Your task to perform on an android device: Clear the shopping cart on ebay.com. Add "apple airpods" to the cart on ebay.com, then select checkout. Image 0: 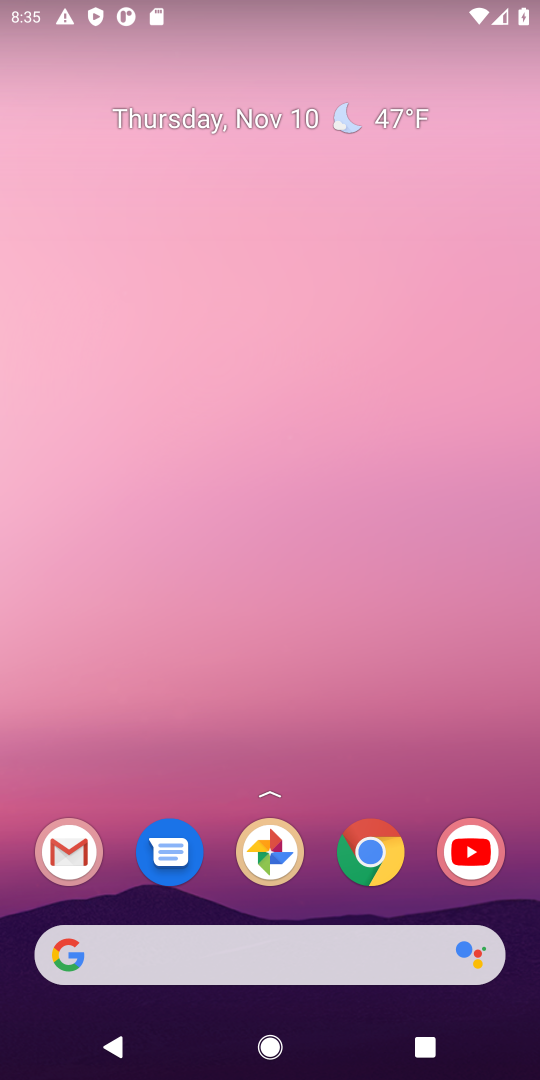
Step 0: press home button
Your task to perform on an android device: Clear the shopping cart on ebay.com. Add "apple airpods" to the cart on ebay.com, then select checkout. Image 1: 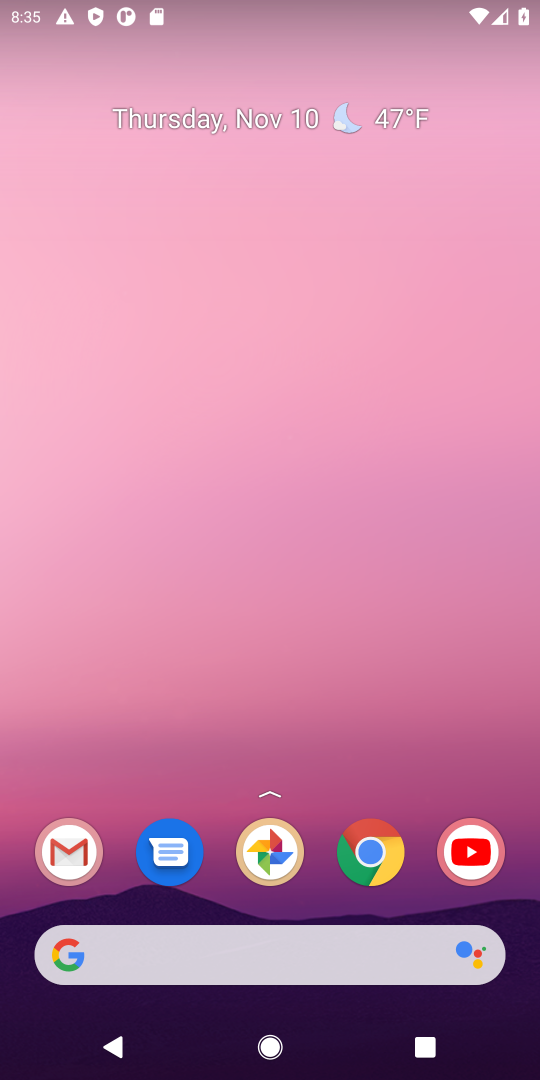
Step 1: click (374, 847)
Your task to perform on an android device: Clear the shopping cart on ebay.com. Add "apple airpods" to the cart on ebay.com, then select checkout. Image 2: 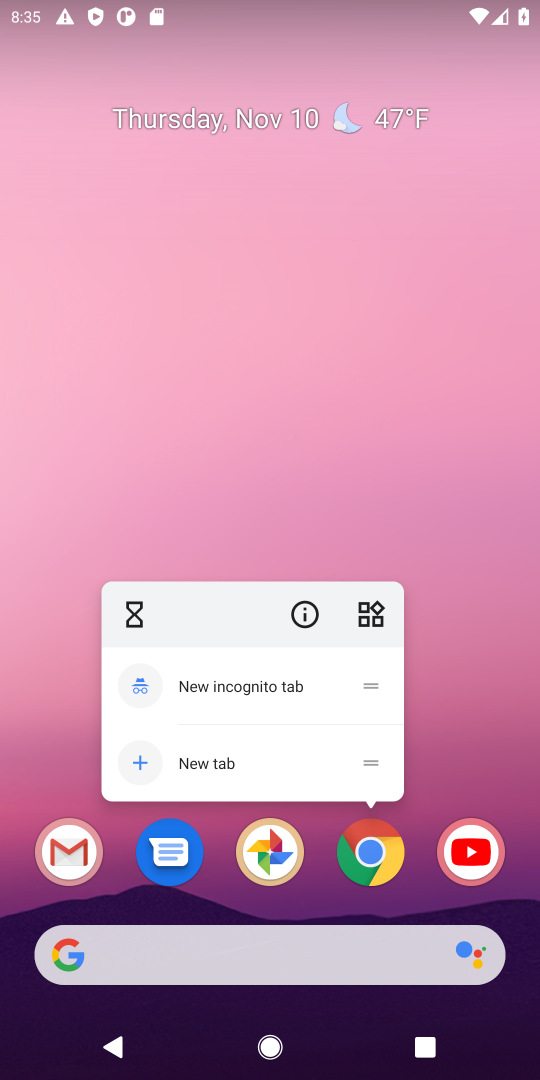
Step 2: click (374, 847)
Your task to perform on an android device: Clear the shopping cart on ebay.com. Add "apple airpods" to the cart on ebay.com, then select checkout. Image 3: 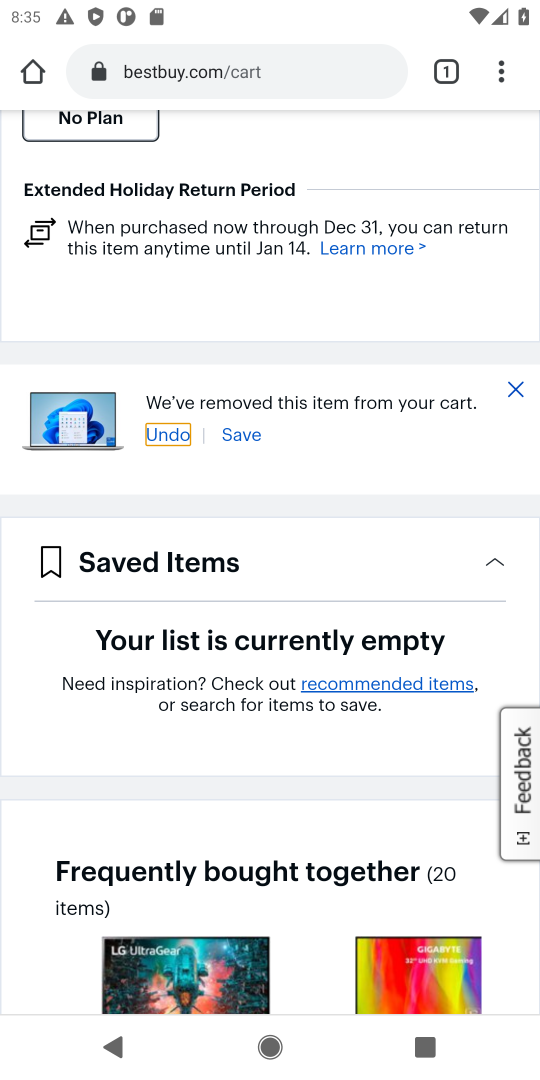
Step 3: click (283, 74)
Your task to perform on an android device: Clear the shopping cart on ebay.com. Add "apple airpods" to the cart on ebay.com, then select checkout. Image 4: 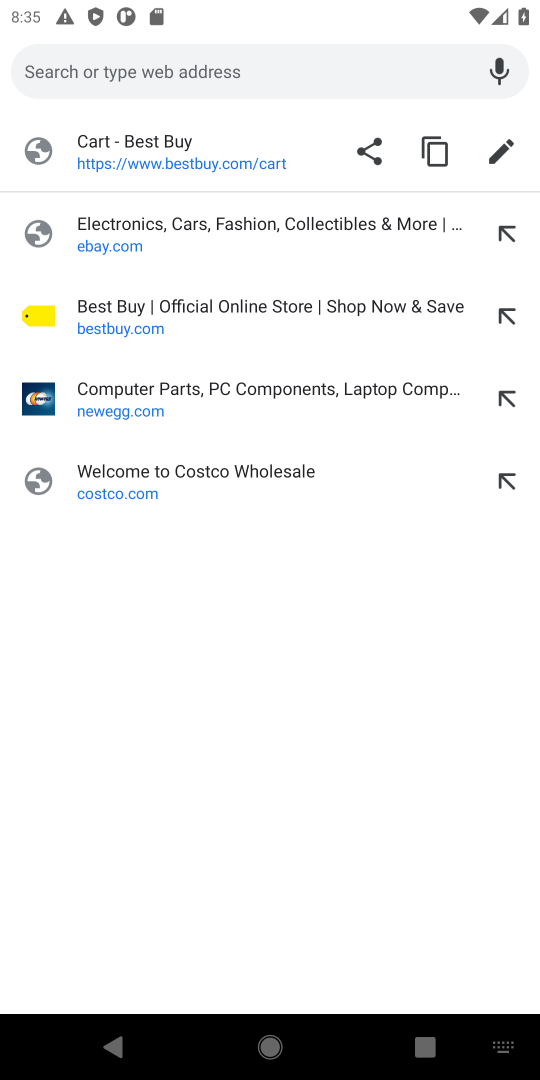
Step 4: click (113, 242)
Your task to perform on an android device: Clear the shopping cart on ebay.com. Add "apple airpods" to the cart on ebay.com, then select checkout. Image 5: 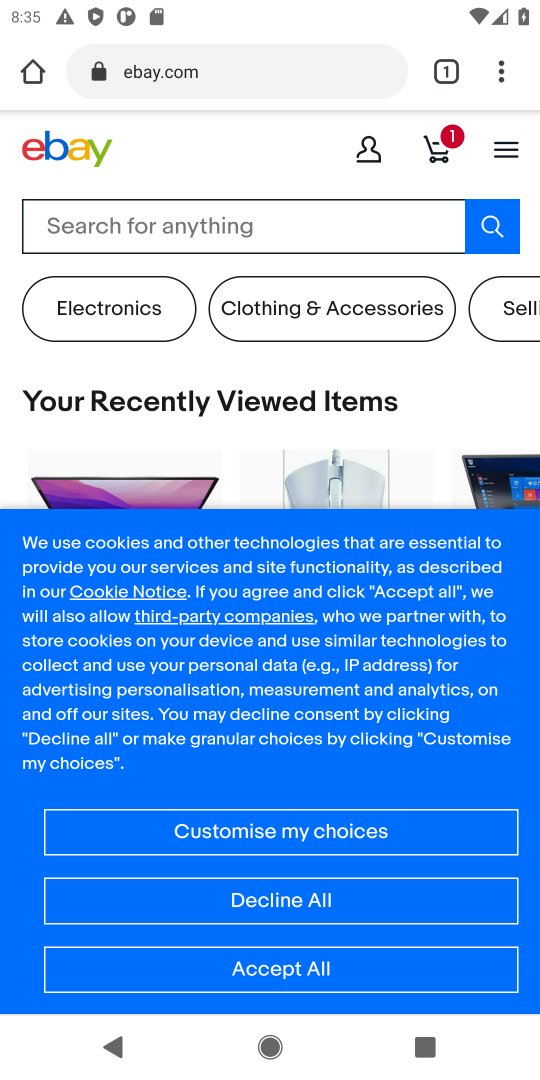
Step 5: click (192, 226)
Your task to perform on an android device: Clear the shopping cart on ebay.com. Add "apple airpods" to the cart on ebay.com, then select checkout. Image 6: 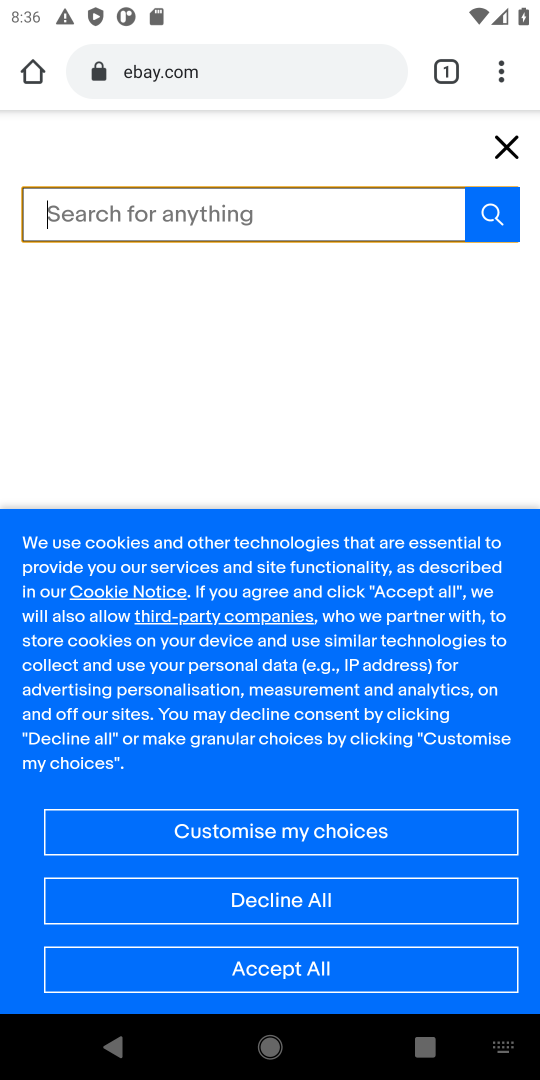
Step 6: type "apple airpods"
Your task to perform on an android device: Clear the shopping cart on ebay.com. Add "apple airpods" to the cart on ebay.com, then select checkout. Image 7: 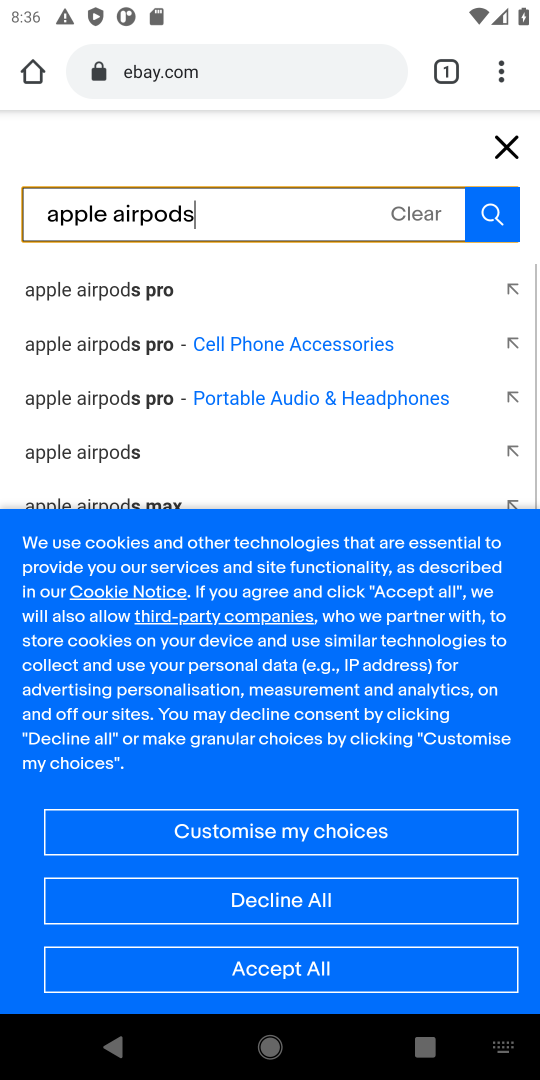
Step 7: press enter
Your task to perform on an android device: Clear the shopping cart on ebay.com. Add "apple airpods" to the cart on ebay.com, then select checkout. Image 8: 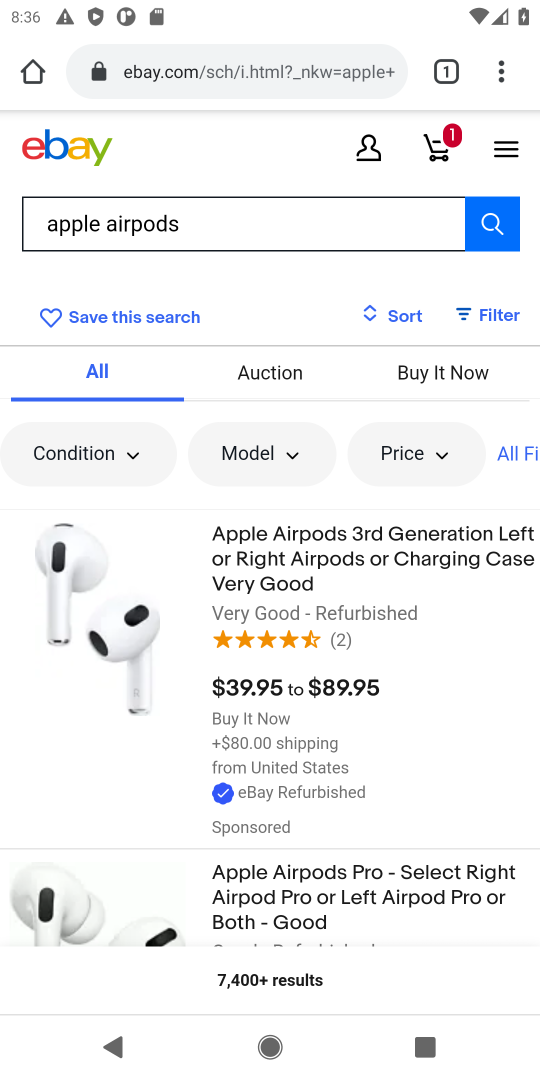
Step 8: click (308, 608)
Your task to perform on an android device: Clear the shopping cart on ebay.com. Add "apple airpods" to the cart on ebay.com, then select checkout. Image 9: 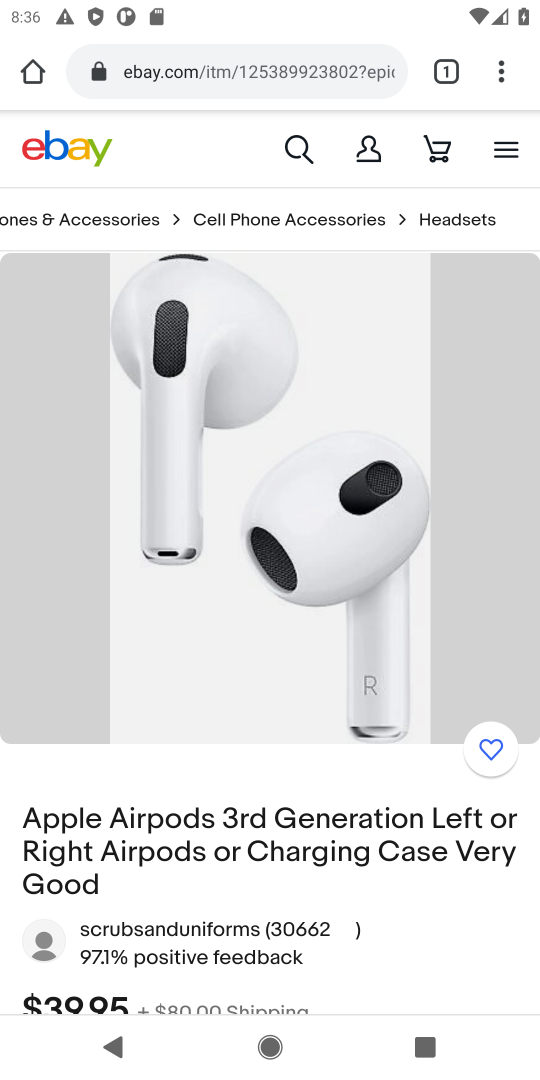
Step 9: drag from (330, 965) to (464, 344)
Your task to perform on an android device: Clear the shopping cart on ebay.com. Add "apple airpods" to the cart on ebay.com, then select checkout. Image 10: 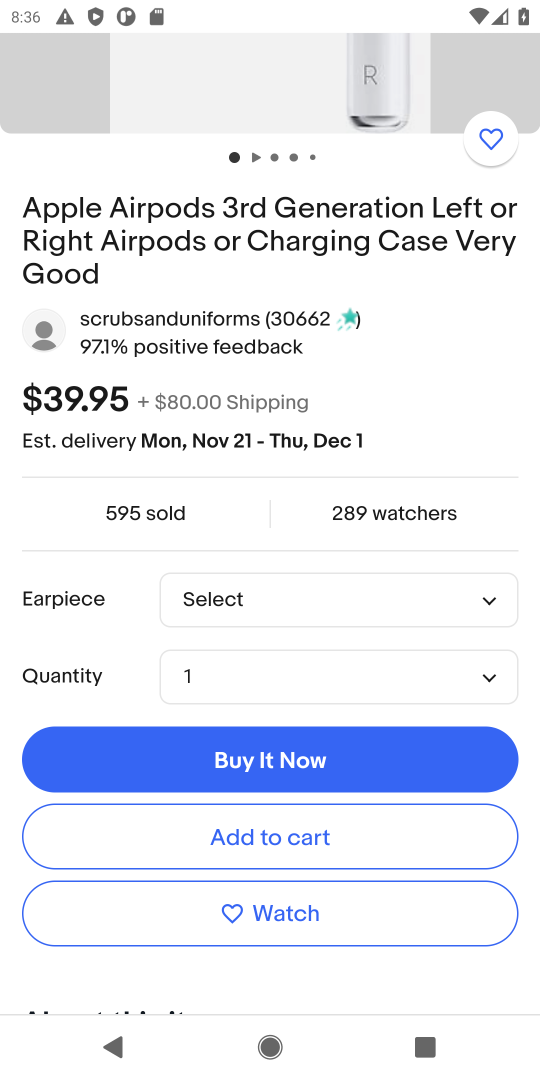
Step 10: click (273, 834)
Your task to perform on an android device: Clear the shopping cart on ebay.com. Add "apple airpods" to the cart on ebay.com, then select checkout. Image 11: 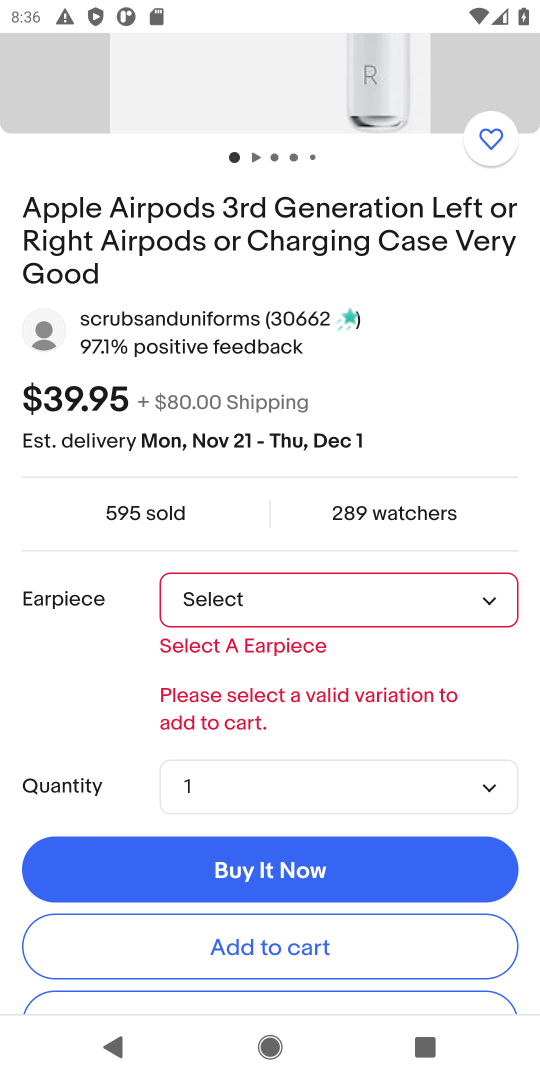
Step 11: click (484, 593)
Your task to perform on an android device: Clear the shopping cart on ebay.com. Add "apple airpods" to the cart on ebay.com, then select checkout. Image 12: 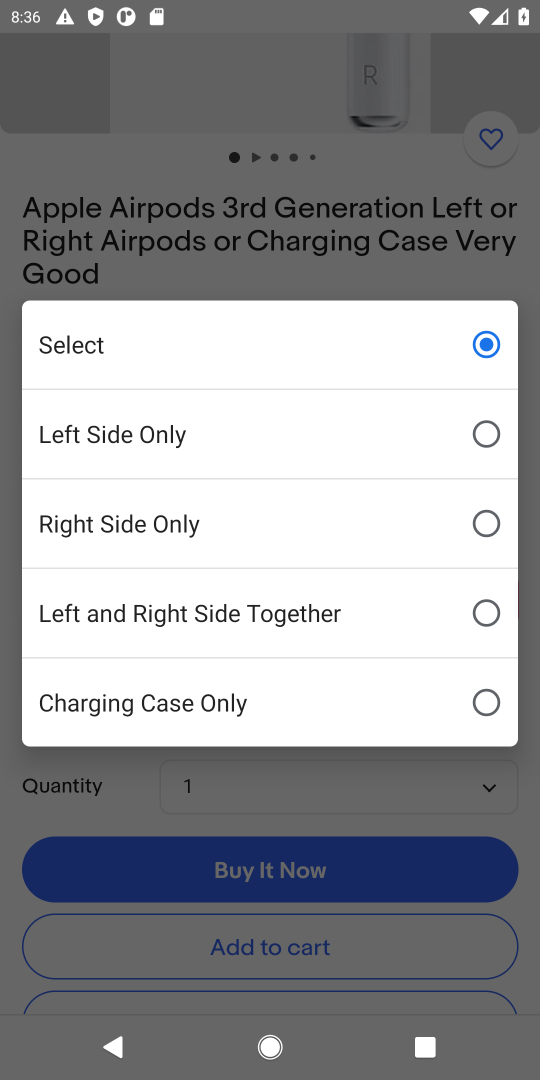
Step 12: click (489, 424)
Your task to perform on an android device: Clear the shopping cart on ebay.com. Add "apple airpods" to the cart on ebay.com, then select checkout. Image 13: 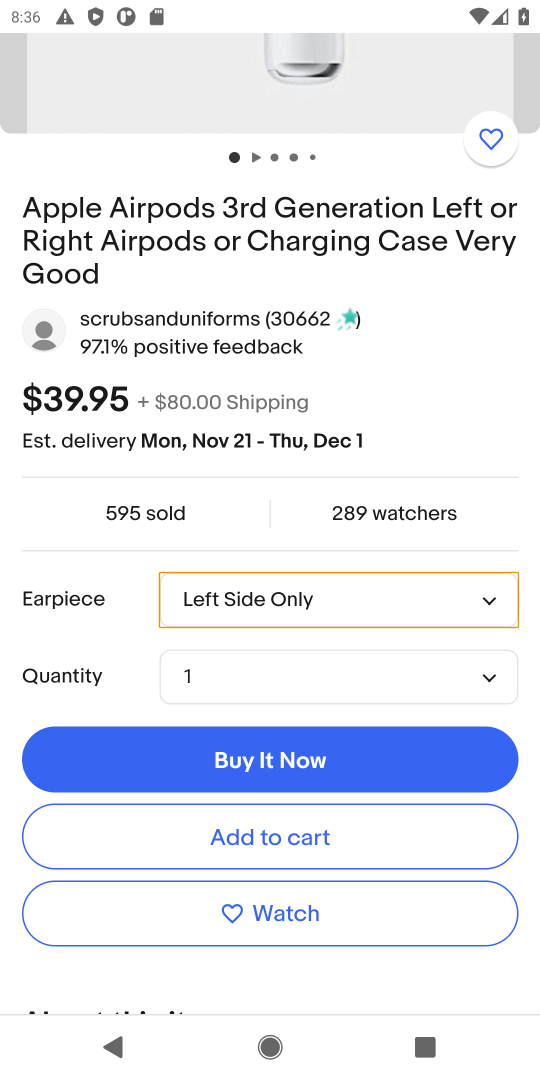
Step 13: click (285, 839)
Your task to perform on an android device: Clear the shopping cart on ebay.com. Add "apple airpods" to the cart on ebay.com, then select checkout. Image 14: 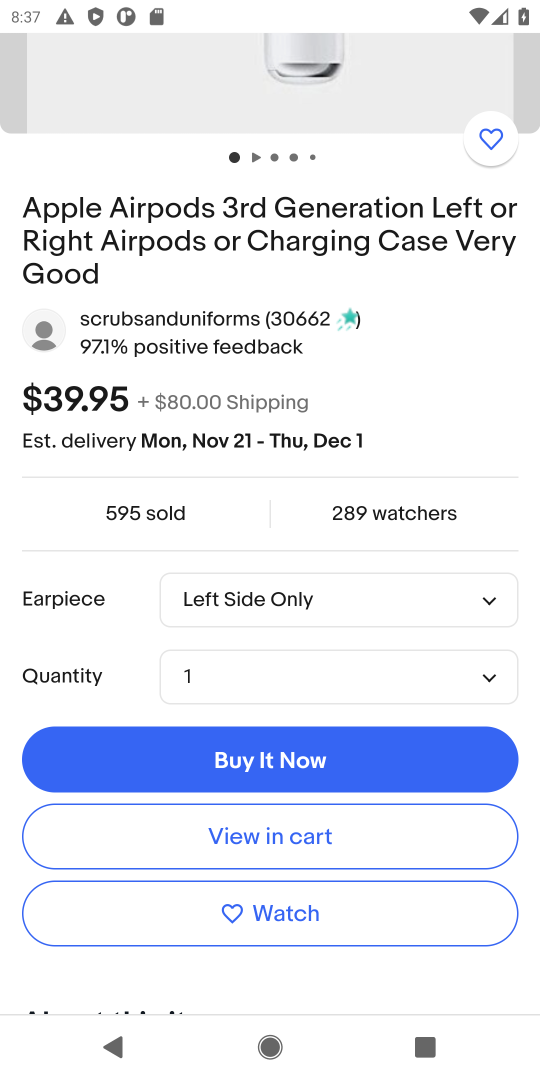
Step 14: click (252, 839)
Your task to perform on an android device: Clear the shopping cart on ebay.com. Add "apple airpods" to the cart on ebay.com, then select checkout. Image 15: 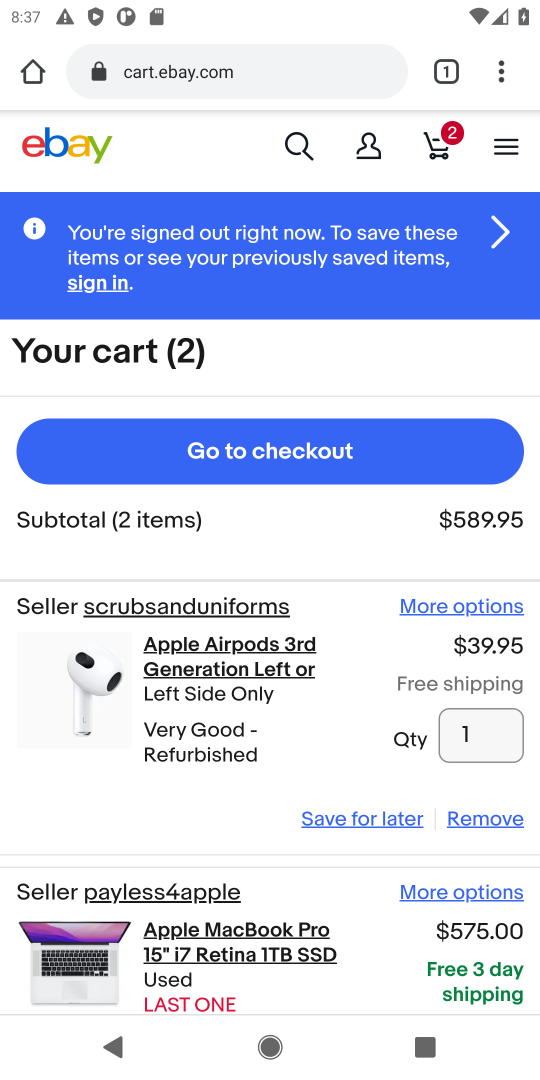
Step 15: drag from (251, 945) to (353, 661)
Your task to perform on an android device: Clear the shopping cart on ebay.com. Add "apple airpods" to the cart on ebay.com, then select checkout. Image 16: 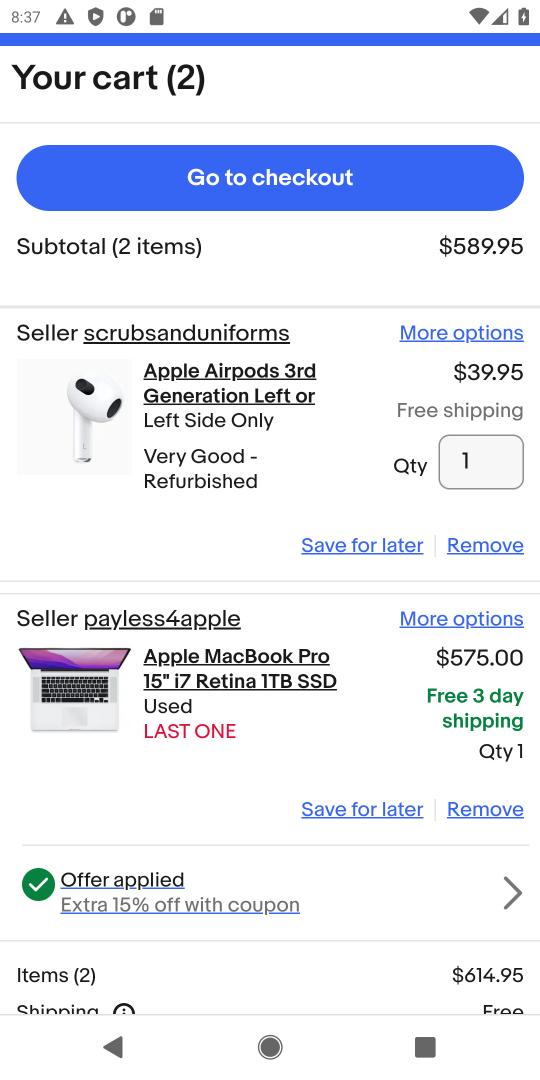
Step 16: click (491, 810)
Your task to perform on an android device: Clear the shopping cart on ebay.com. Add "apple airpods" to the cart on ebay.com, then select checkout. Image 17: 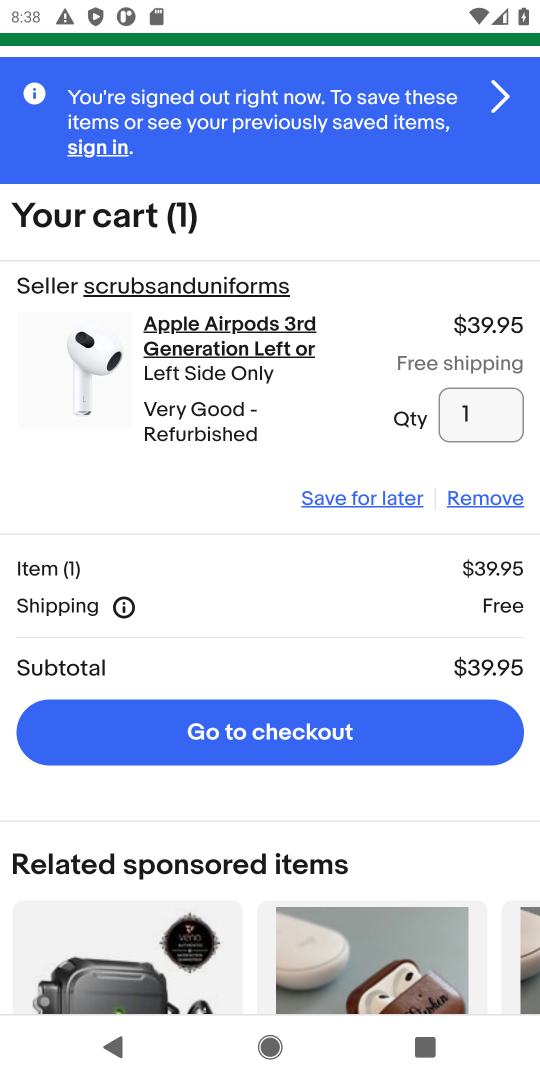
Step 17: click (342, 732)
Your task to perform on an android device: Clear the shopping cart on ebay.com. Add "apple airpods" to the cart on ebay.com, then select checkout. Image 18: 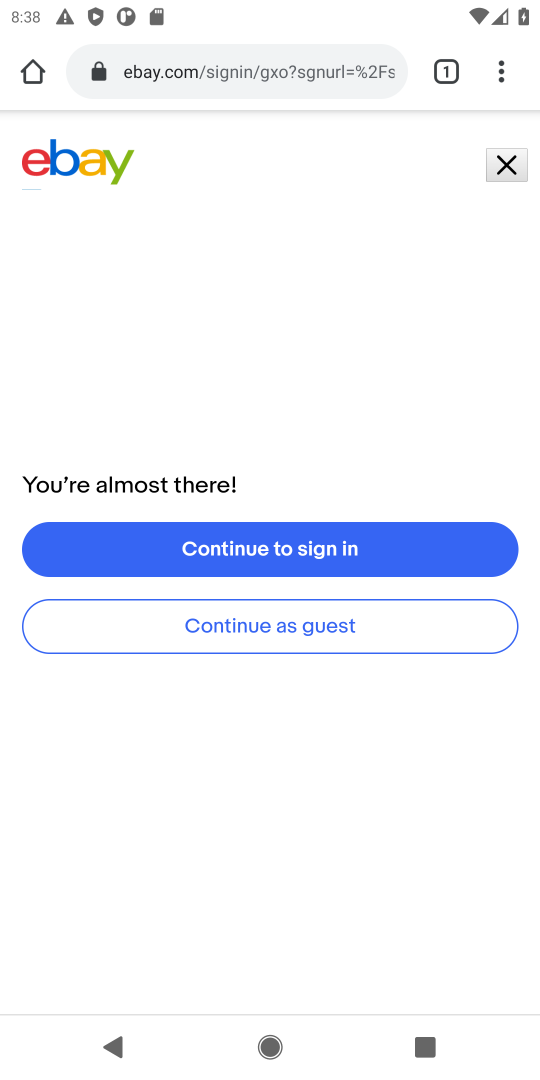
Step 18: task complete